Your task to perform on an android device: open a bookmark in the chrome app Image 0: 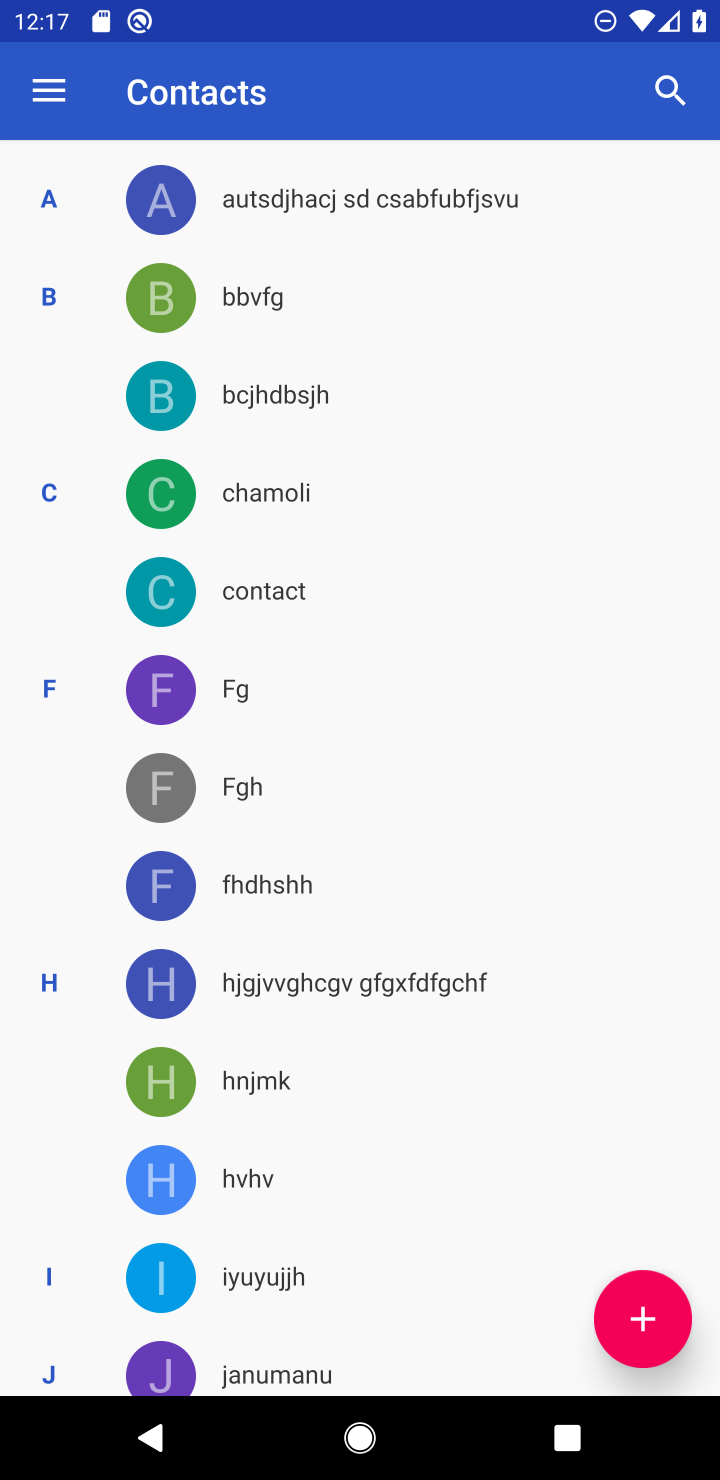
Step 0: press home button
Your task to perform on an android device: open a bookmark in the chrome app Image 1: 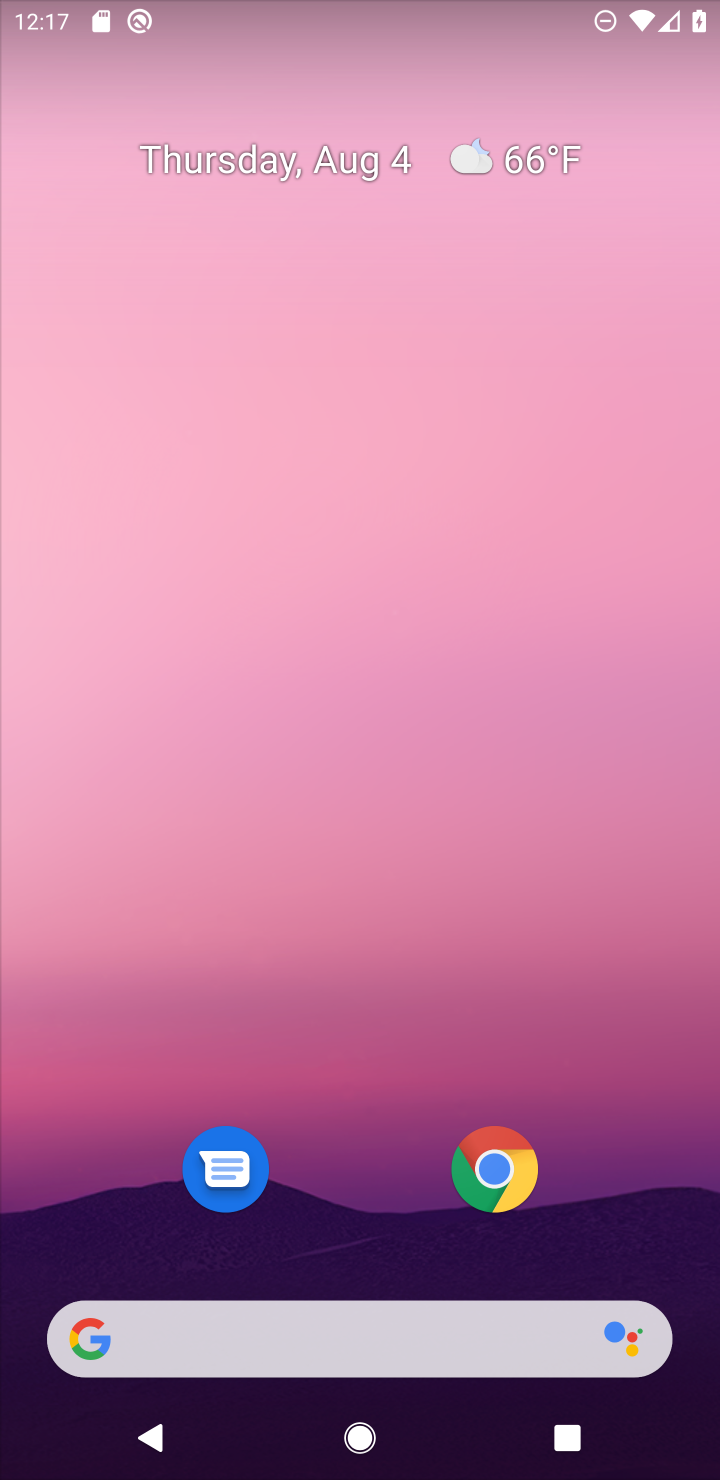
Step 1: click (488, 1173)
Your task to perform on an android device: open a bookmark in the chrome app Image 2: 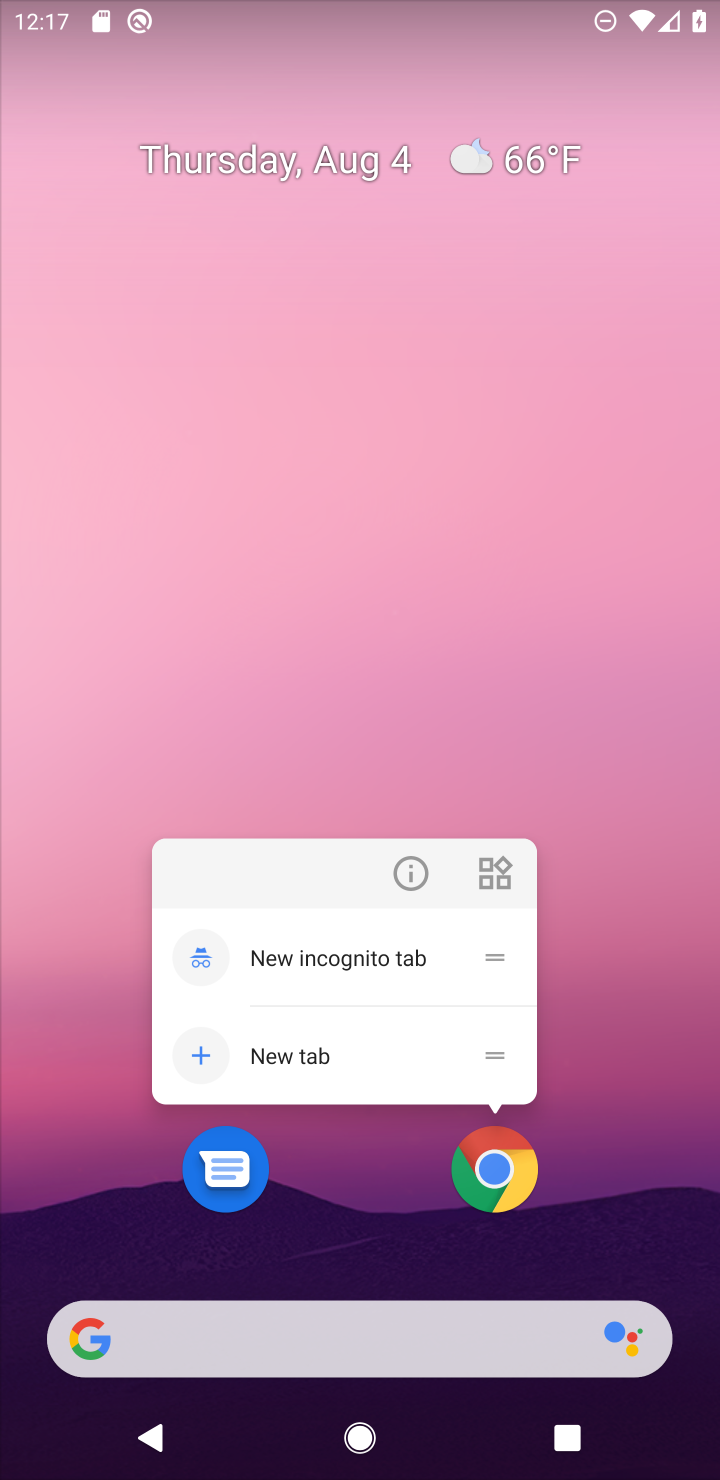
Step 2: click (489, 1186)
Your task to perform on an android device: open a bookmark in the chrome app Image 3: 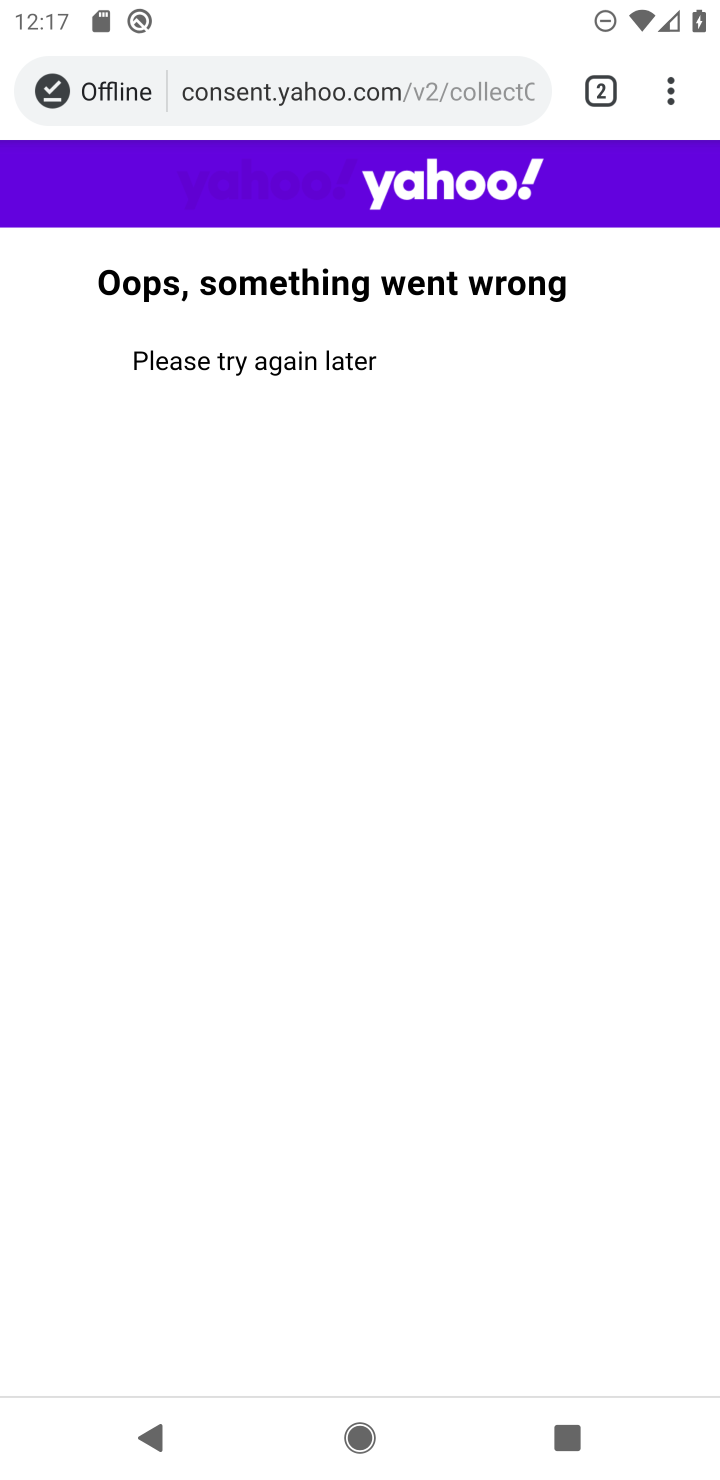
Step 3: drag from (676, 94) to (419, 351)
Your task to perform on an android device: open a bookmark in the chrome app Image 4: 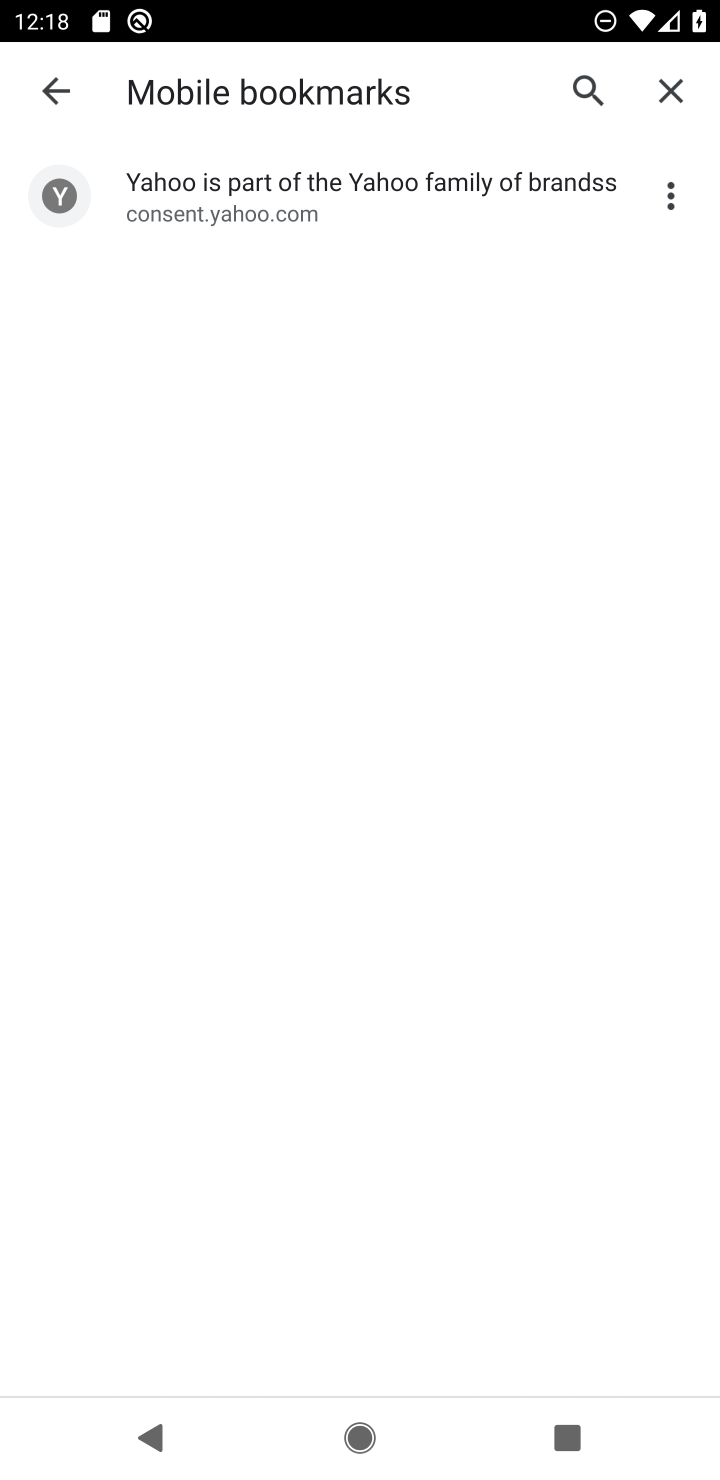
Step 4: click (248, 204)
Your task to perform on an android device: open a bookmark in the chrome app Image 5: 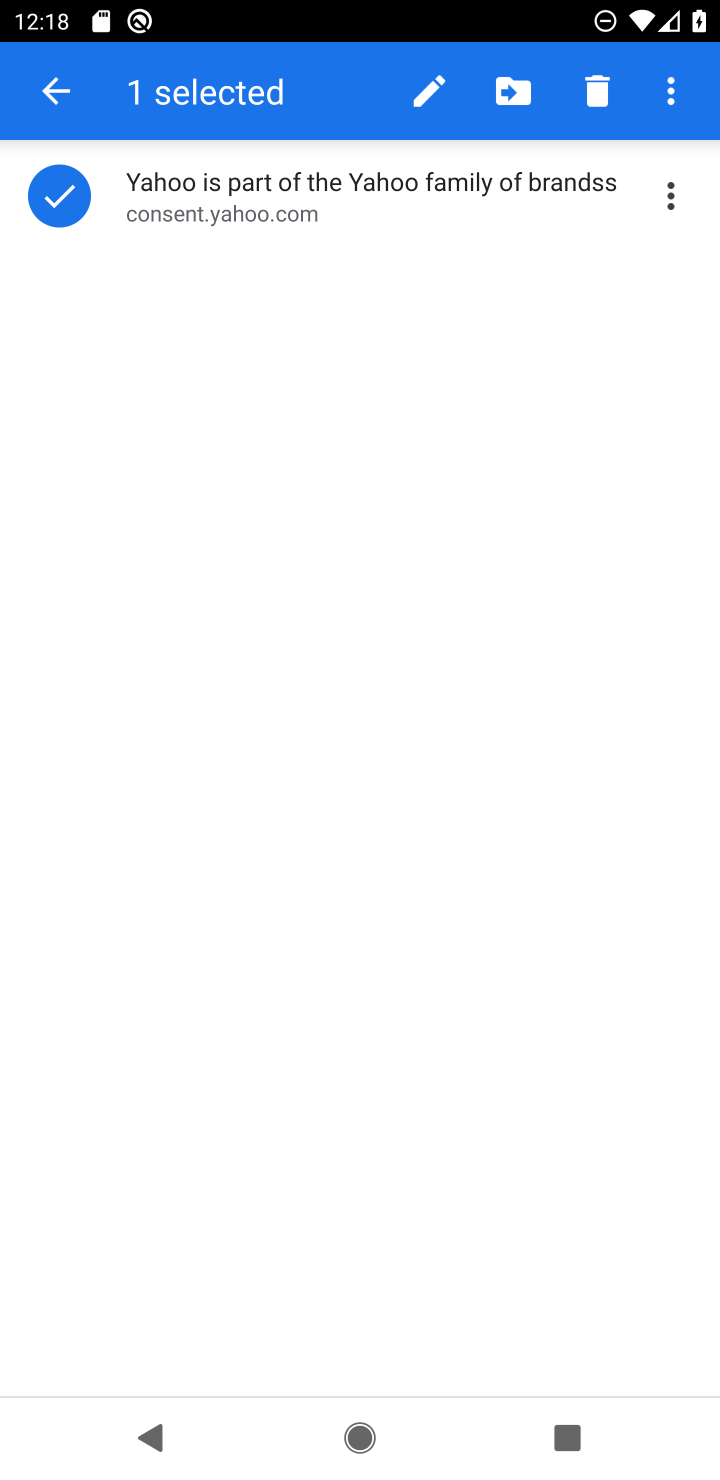
Step 5: click (262, 177)
Your task to perform on an android device: open a bookmark in the chrome app Image 6: 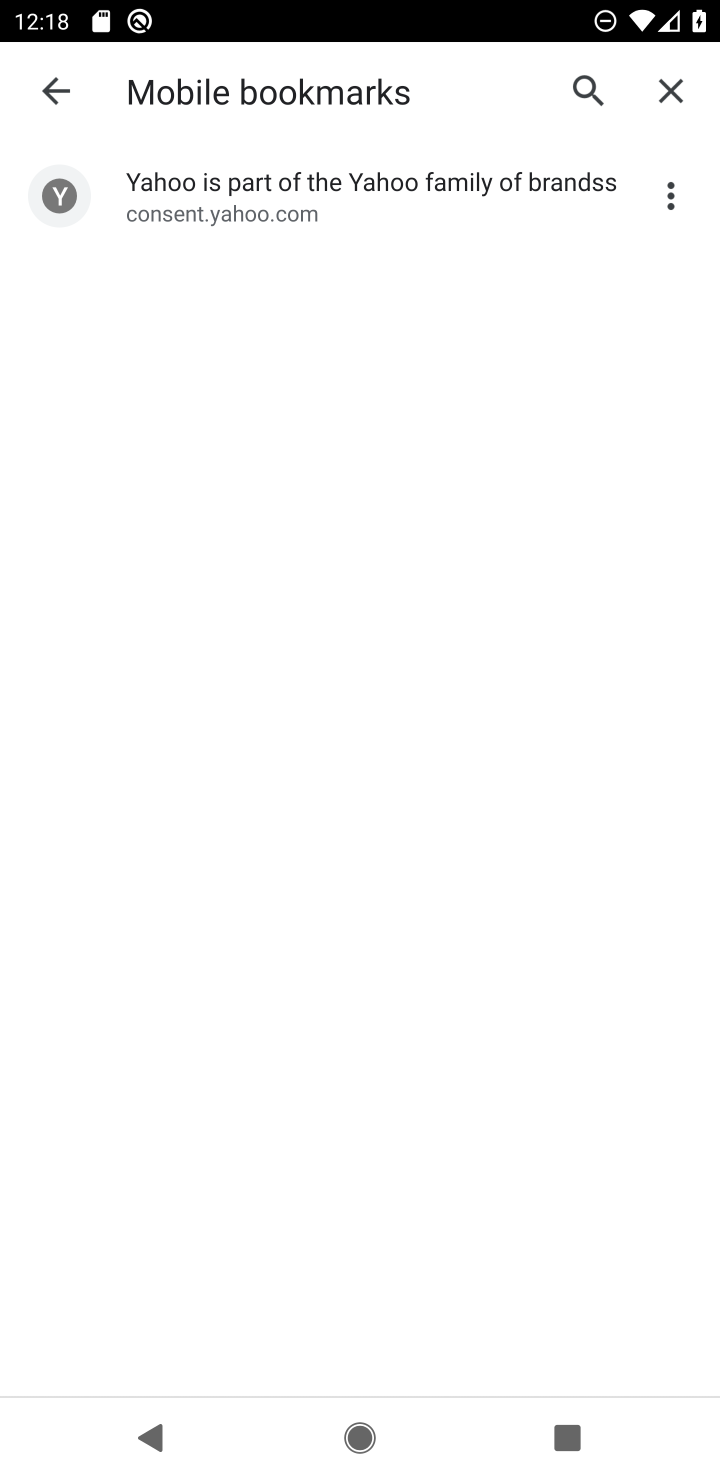
Step 6: click (262, 184)
Your task to perform on an android device: open a bookmark in the chrome app Image 7: 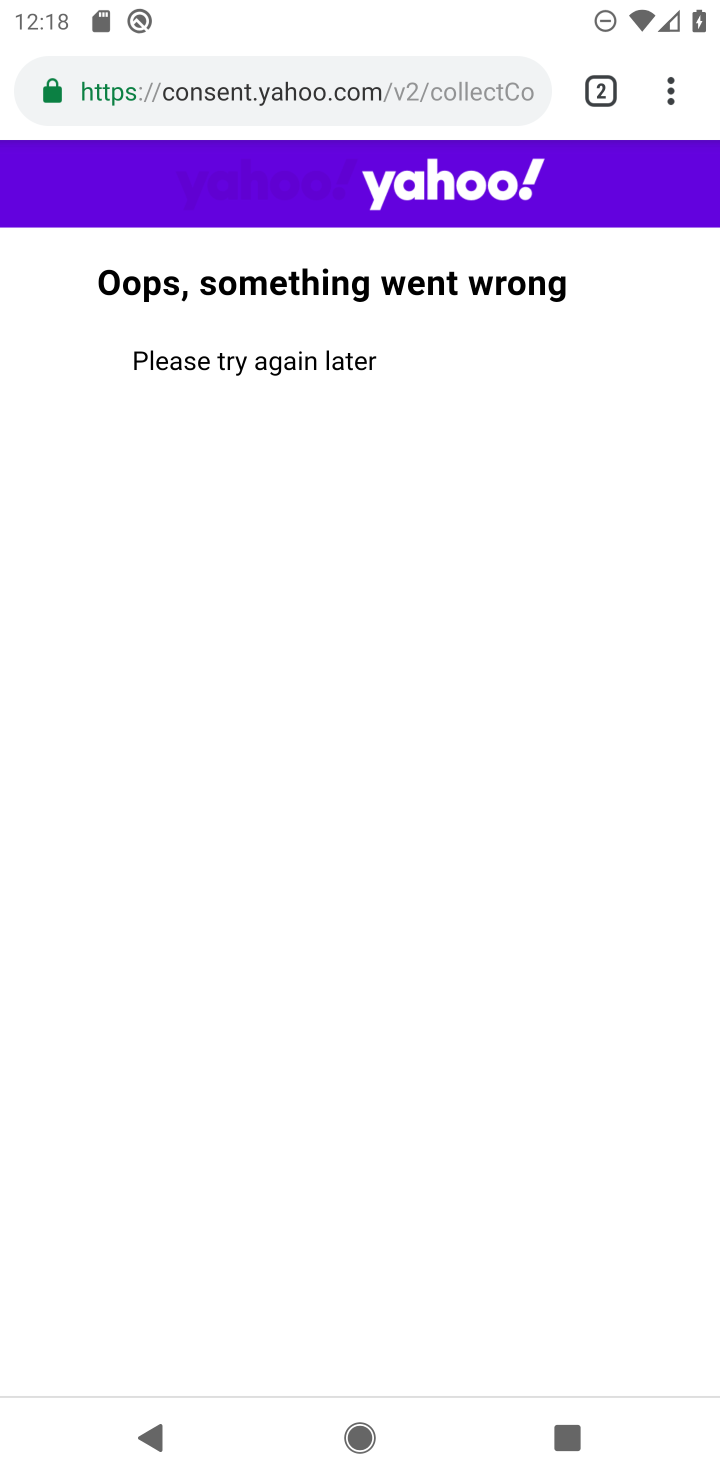
Step 7: drag from (446, 505) to (450, 931)
Your task to perform on an android device: open a bookmark in the chrome app Image 8: 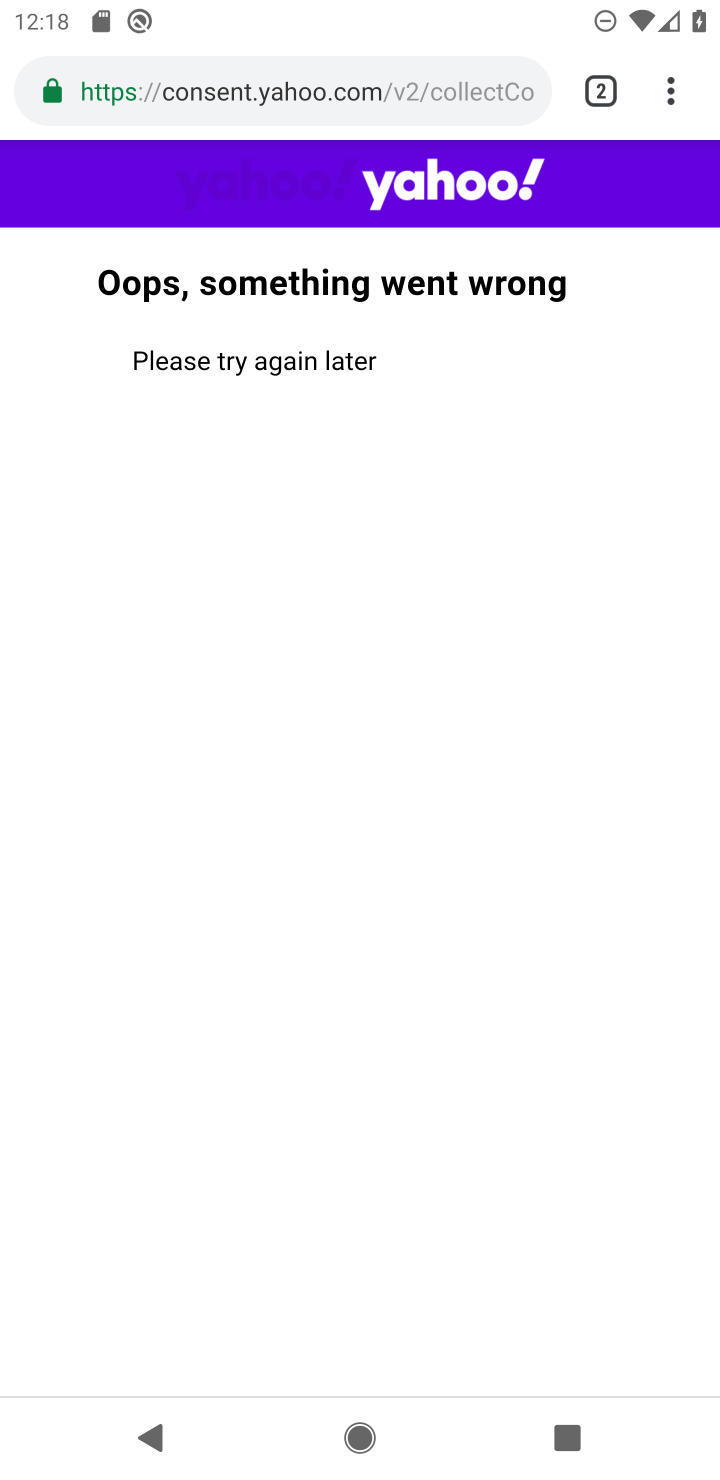
Step 8: click (327, 367)
Your task to perform on an android device: open a bookmark in the chrome app Image 9: 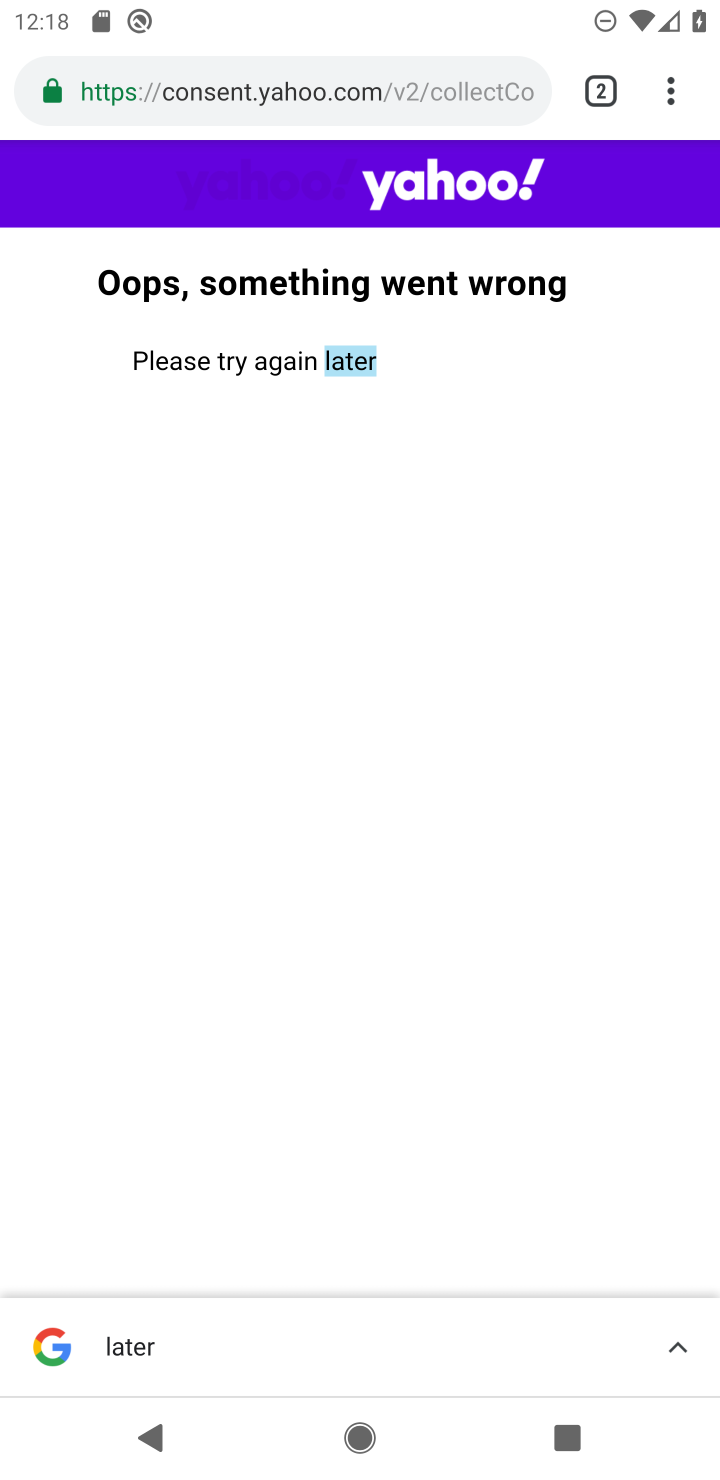
Step 9: click (401, 399)
Your task to perform on an android device: open a bookmark in the chrome app Image 10: 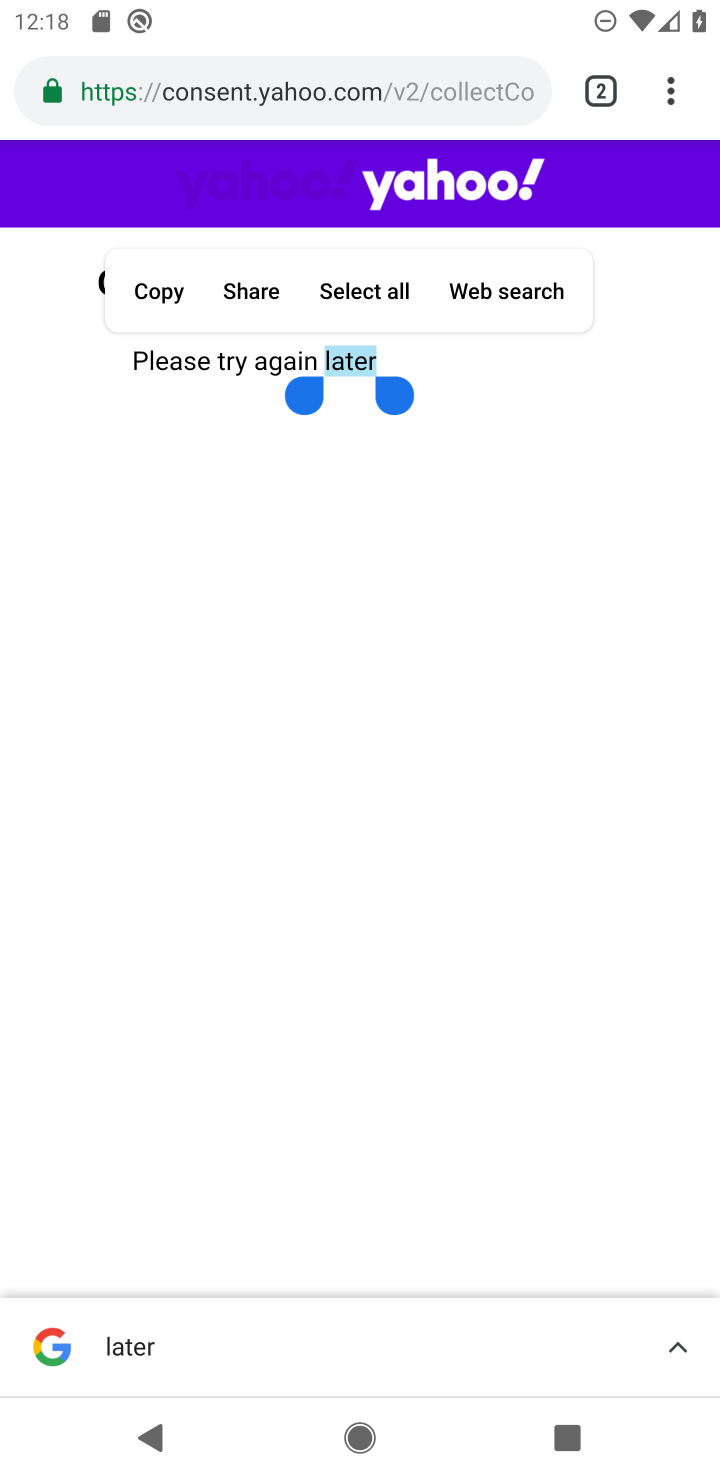
Step 10: click (347, 505)
Your task to perform on an android device: open a bookmark in the chrome app Image 11: 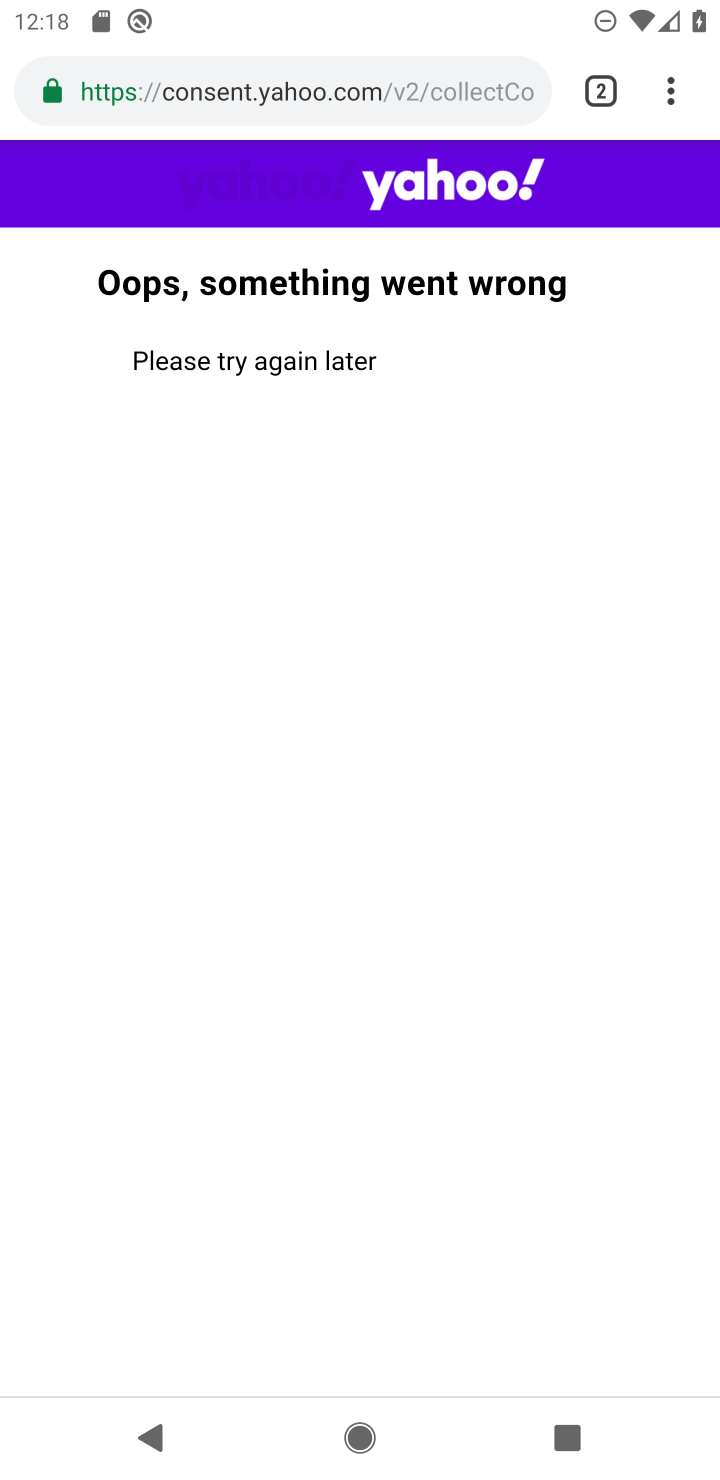
Step 11: task complete